Your task to perform on an android device: Open Amazon Image 0: 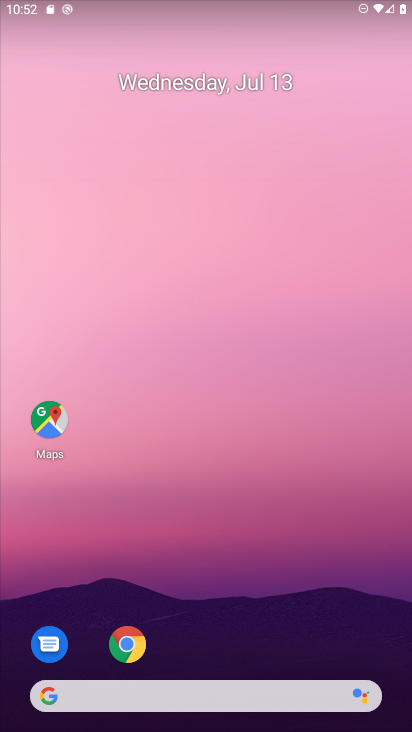
Step 0: click (126, 639)
Your task to perform on an android device: Open Amazon Image 1: 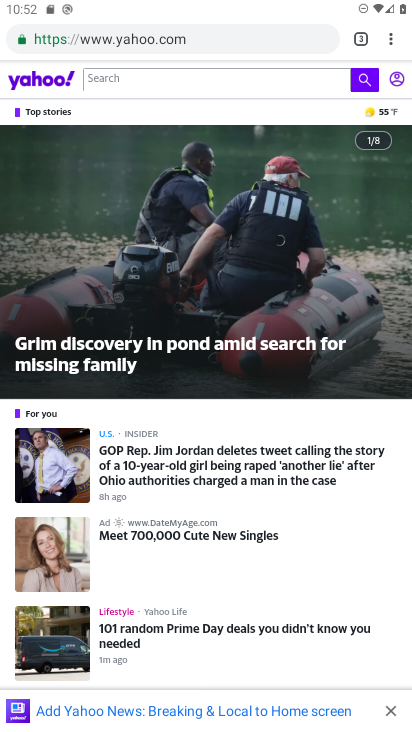
Step 1: click (391, 33)
Your task to perform on an android device: Open Amazon Image 2: 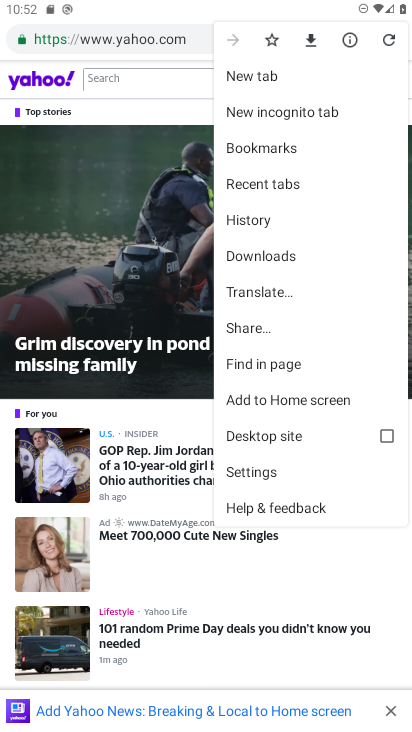
Step 2: click (256, 76)
Your task to perform on an android device: Open Amazon Image 3: 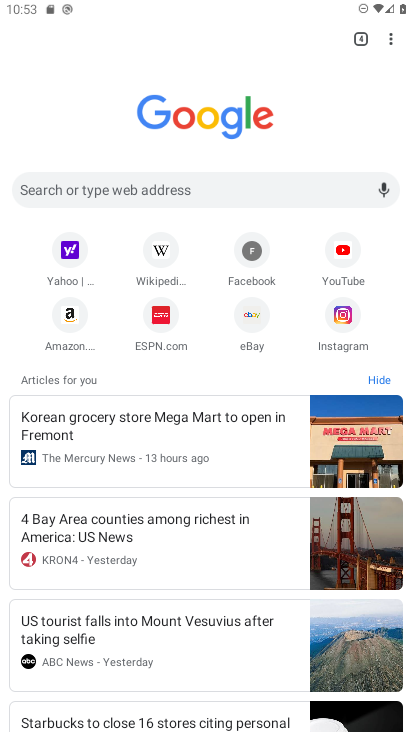
Step 3: click (64, 308)
Your task to perform on an android device: Open Amazon Image 4: 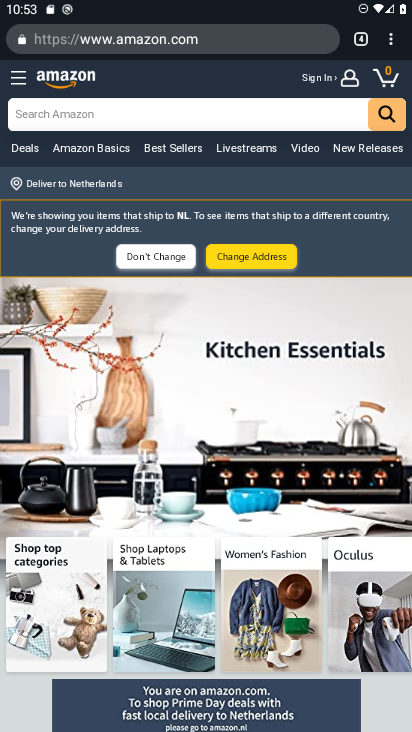
Step 4: task complete